Your task to perform on an android device: Check the weather Image 0: 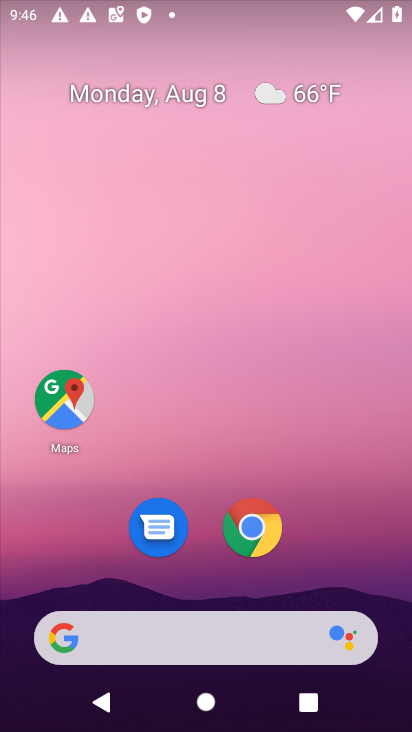
Step 0: drag from (396, 651) to (380, 86)
Your task to perform on an android device: Check the weather Image 1: 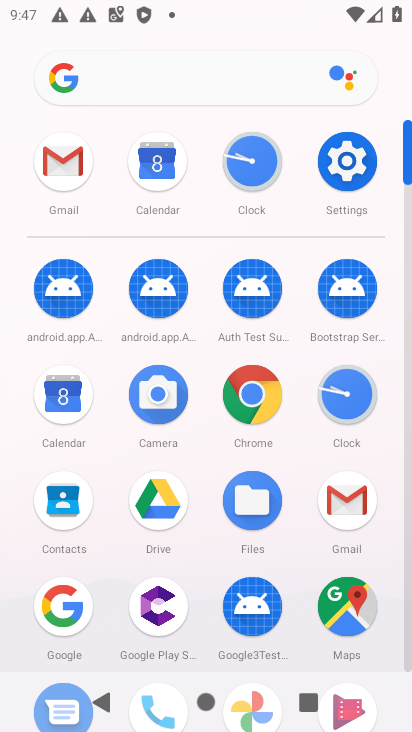
Step 1: click (53, 605)
Your task to perform on an android device: Check the weather Image 2: 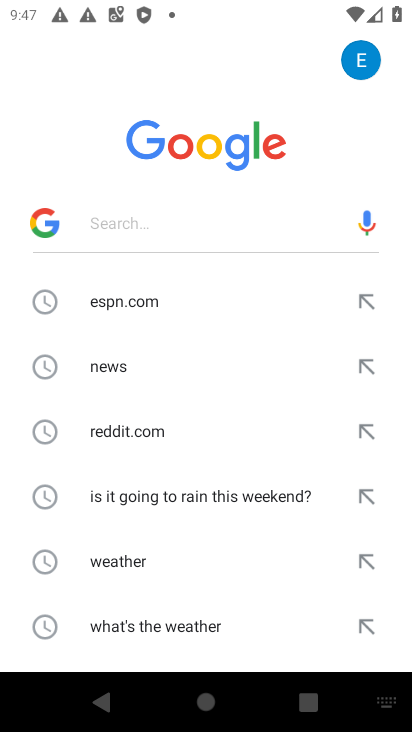
Step 2: press back button
Your task to perform on an android device: Check the weather Image 3: 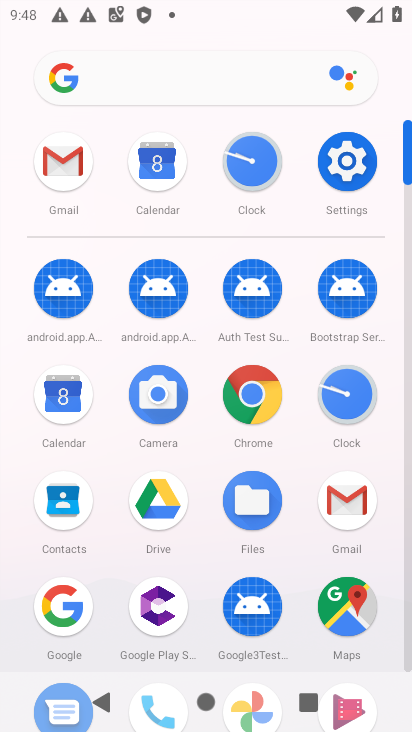
Step 3: click (69, 595)
Your task to perform on an android device: Check the weather Image 4: 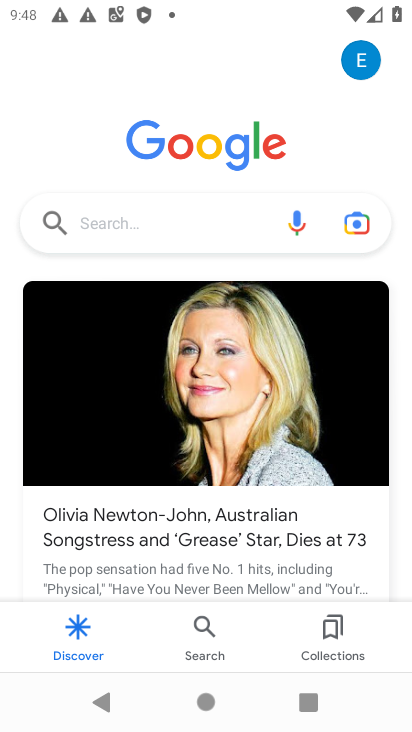
Step 4: task complete